Your task to perform on an android device: clear all cookies in the chrome app Image 0: 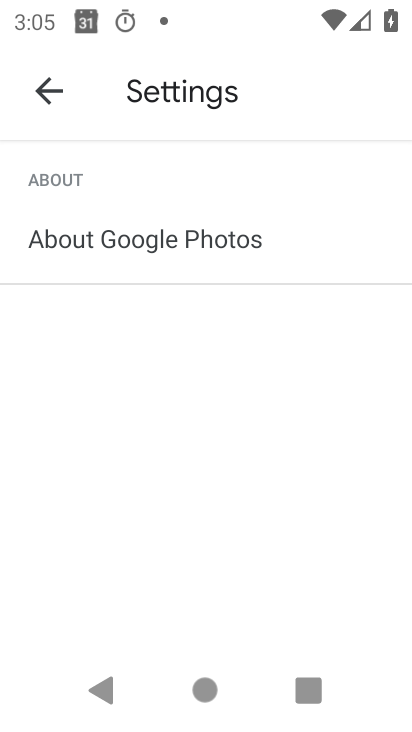
Step 0: press home button
Your task to perform on an android device: clear all cookies in the chrome app Image 1: 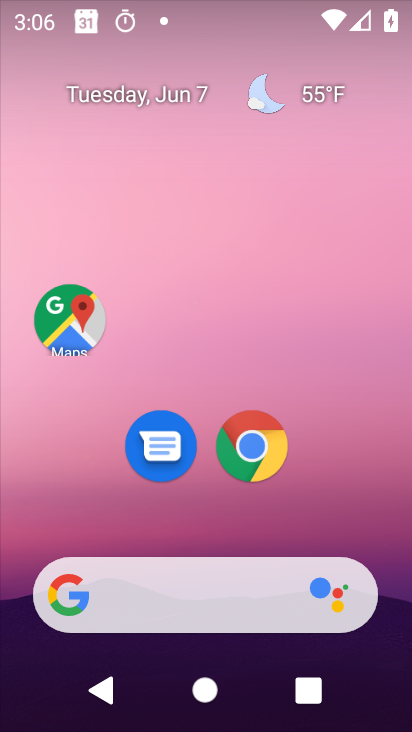
Step 1: click (250, 449)
Your task to perform on an android device: clear all cookies in the chrome app Image 2: 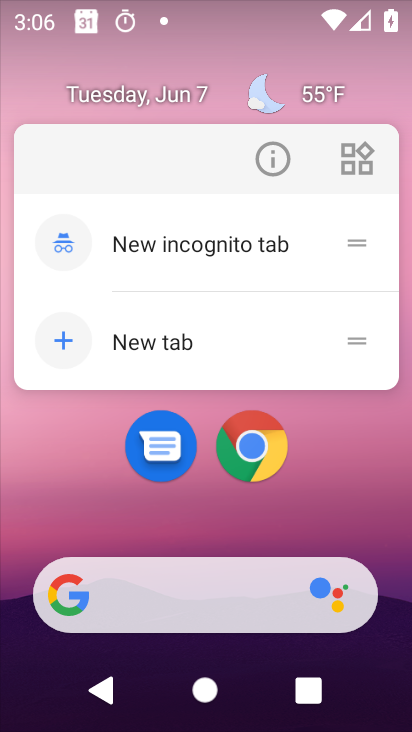
Step 2: click (264, 439)
Your task to perform on an android device: clear all cookies in the chrome app Image 3: 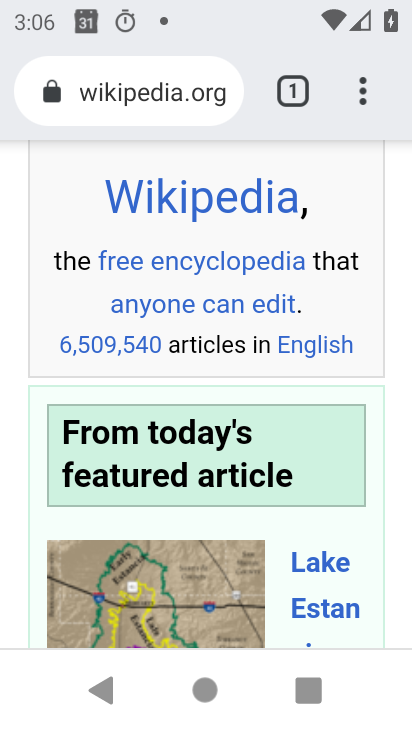
Step 3: click (365, 100)
Your task to perform on an android device: clear all cookies in the chrome app Image 4: 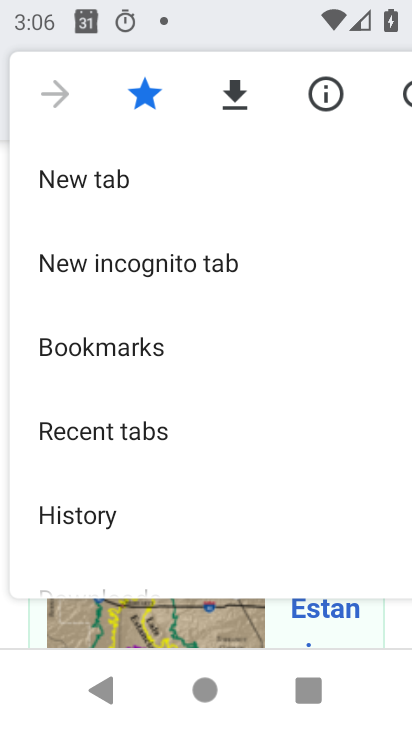
Step 4: click (94, 514)
Your task to perform on an android device: clear all cookies in the chrome app Image 5: 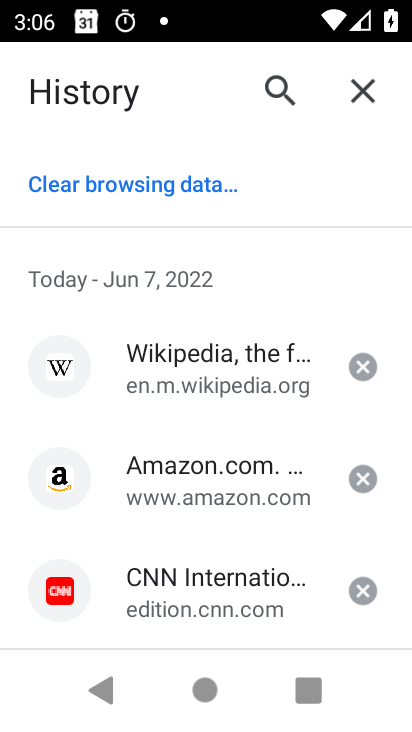
Step 5: click (110, 179)
Your task to perform on an android device: clear all cookies in the chrome app Image 6: 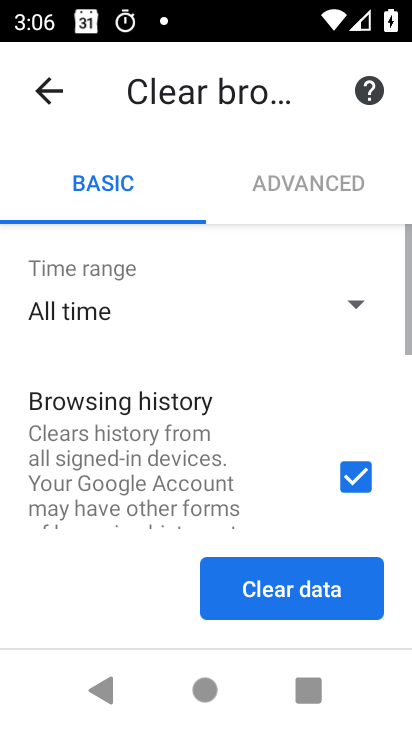
Step 6: click (219, 495)
Your task to perform on an android device: clear all cookies in the chrome app Image 7: 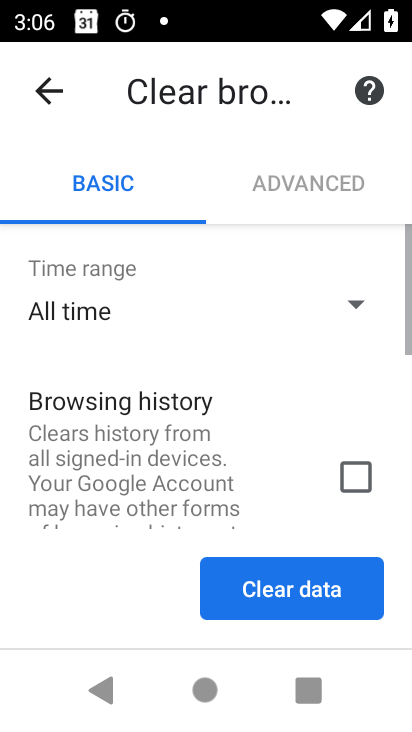
Step 7: drag from (221, 488) to (264, 146)
Your task to perform on an android device: clear all cookies in the chrome app Image 8: 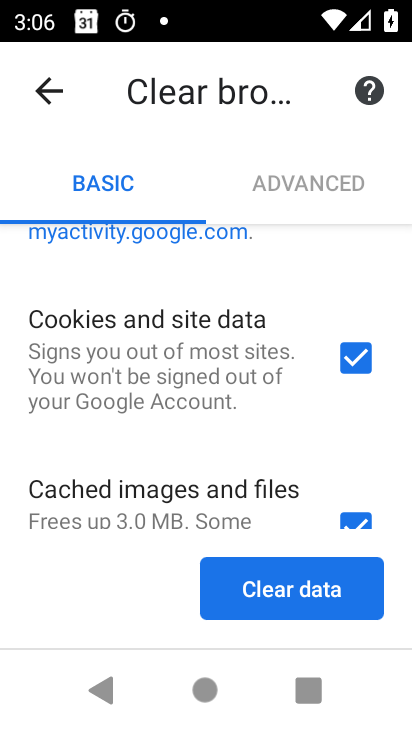
Step 8: click (340, 500)
Your task to perform on an android device: clear all cookies in the chrome app Image 9: 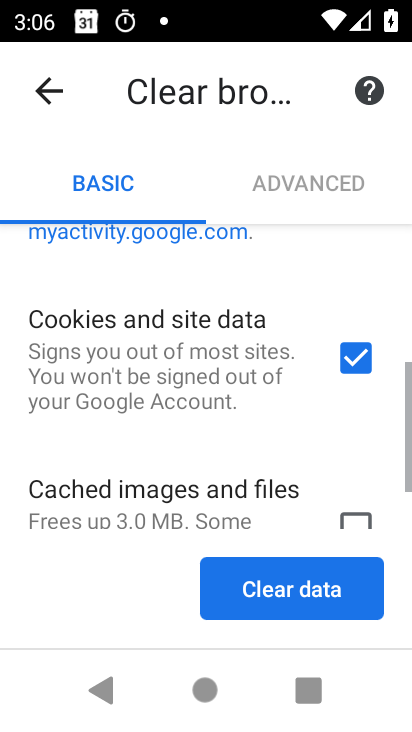
Step 9: click (298, 596)
Your task to perform on an android device: clear all cookies in the chrome app Image 10: 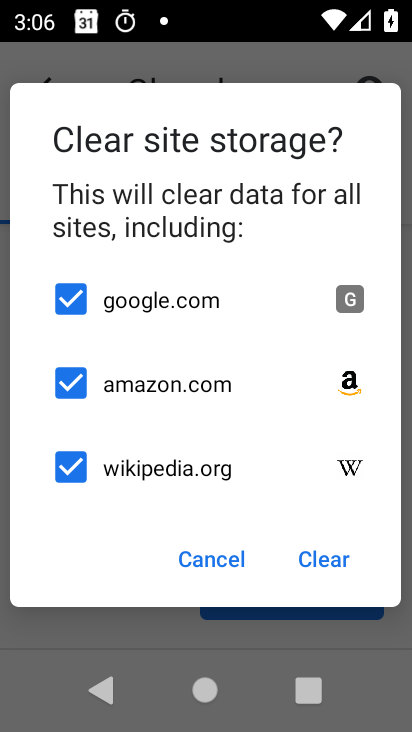
Step 10: click (328, 547)
Your task to perform on an android device: clear all cookies in the chrome app Image 11: 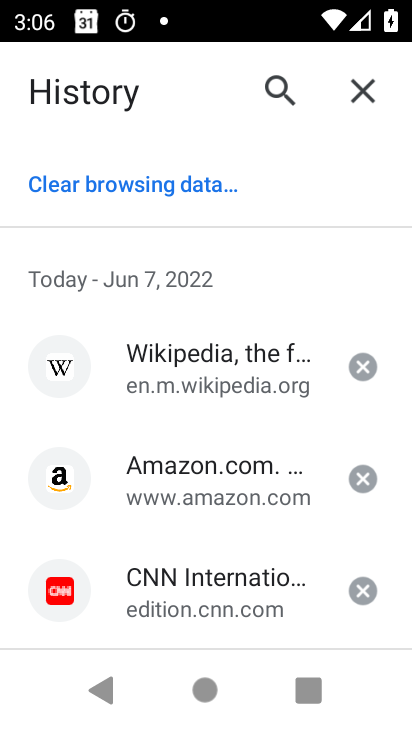
Step 11: task complete